Your task to perform on an android device: Go to Yahoo.com Image 0: 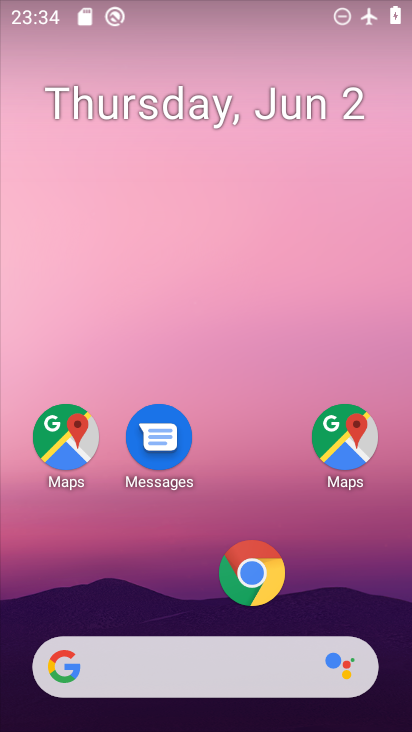
Step 0: click (251, 574)
Your task to perform on an android device: Go to Yahoo.com Image 1: 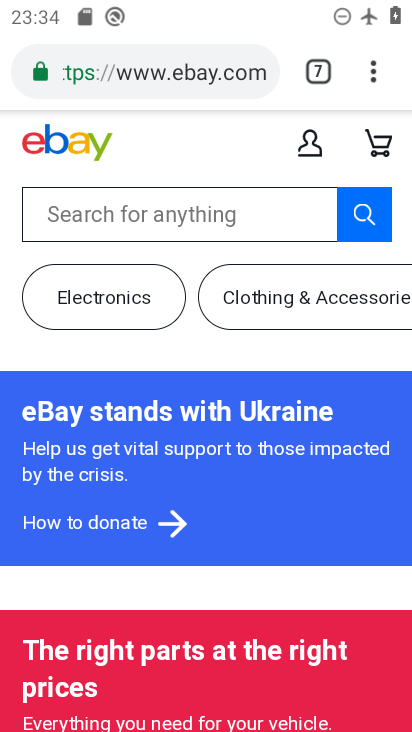
Step 1: click (308, 75)
Your task to perform on an android device: Go to Yahoo.com Image 2: 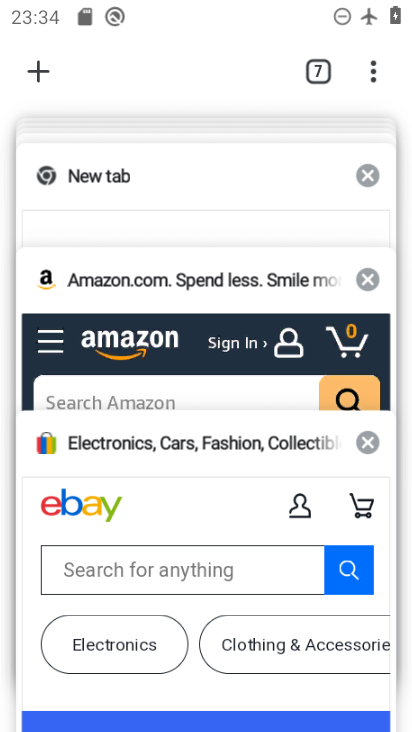
Step 2: drag from (233, 206) to (227, 541)
Your task to perform on an android device: Go to Yahoo.com Image 3: 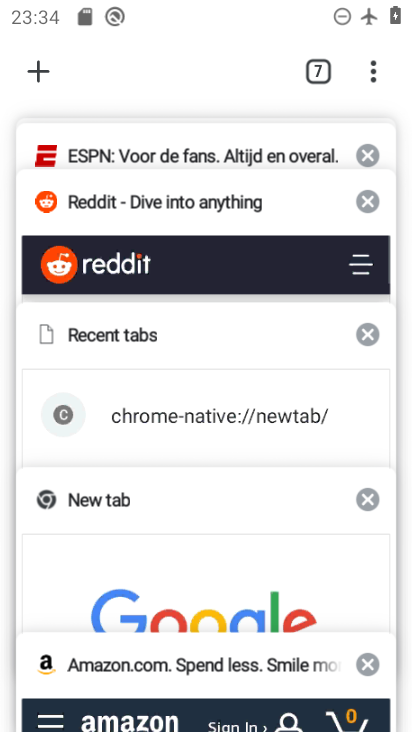
Step 3: drag from (226, 193) to (254, 701)
Your task to perform on an android device: Go to Yahoo.com Image 4: 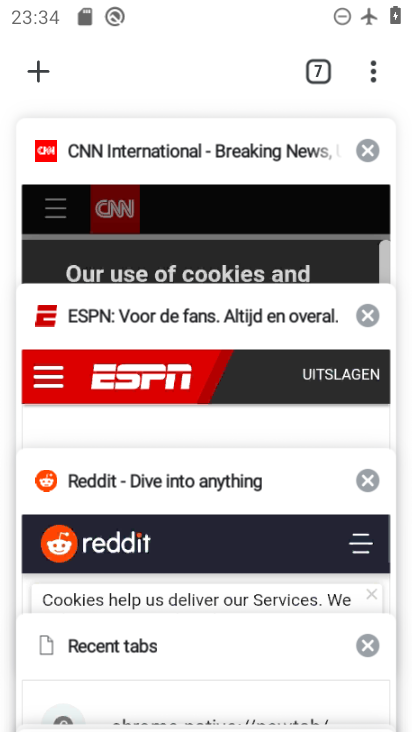
Step 4: drag from (214, 199) to (168, 608)
Your task to perform on an android device: Go to Yahoo.com Image 5: 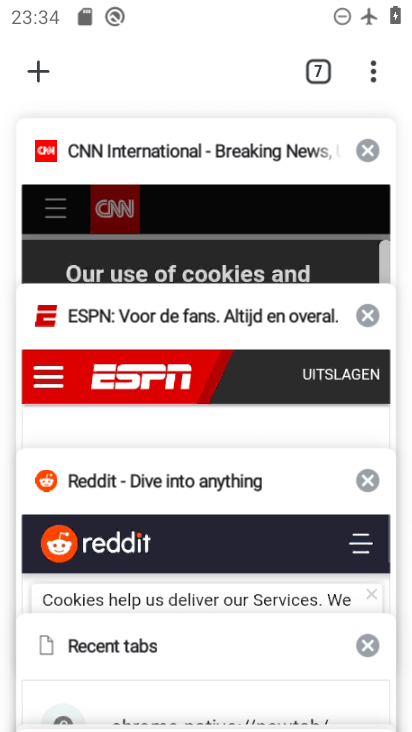
Step 5: drag from (201, 642) to (273, 179)
Your task to perform on an android device: Go to Yahoo.com Image 6: 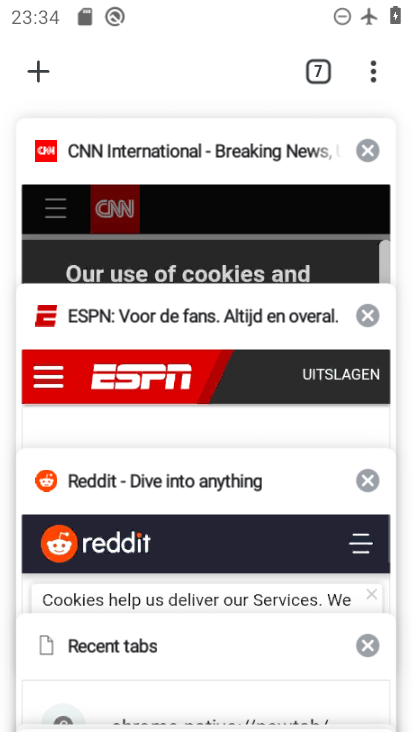
Step 6: drag from (144, 644) to (122, 308)
Your task to perform on an android device: Go to Yahoo.com Image 7: 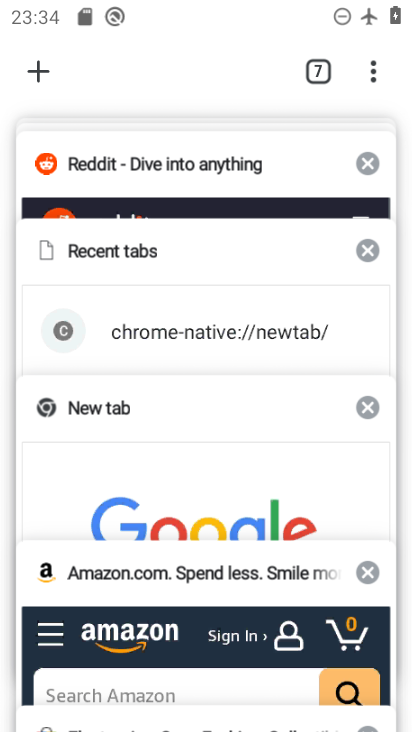
Step 7: click (138, 481)
Your task to perform on an android device: Go to Yahoo.com Image 8: 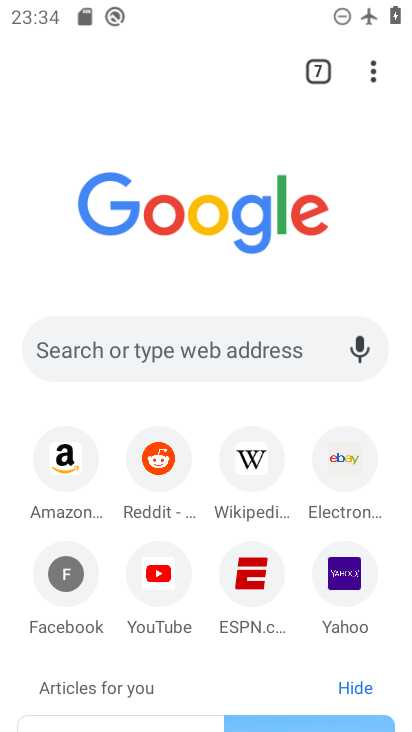
Step 8: click (355, 562)
Your task to perform on an android device: Go to Yahoo.com Image 9: 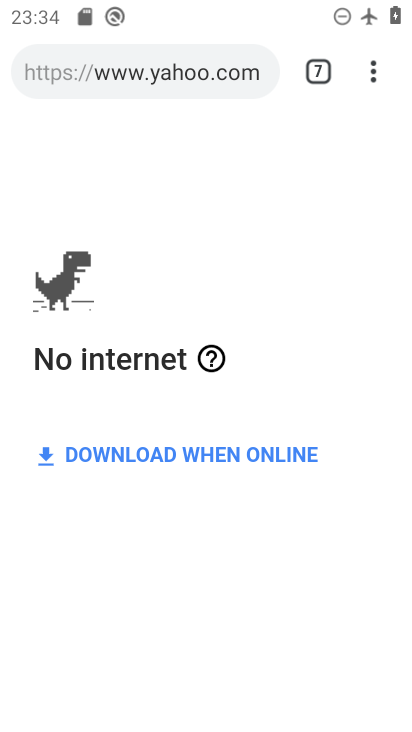
Step 9: drag from (283, 12) to (181, 478)
Your task to perform on an android device: Go to Yahoo.com Image 10: 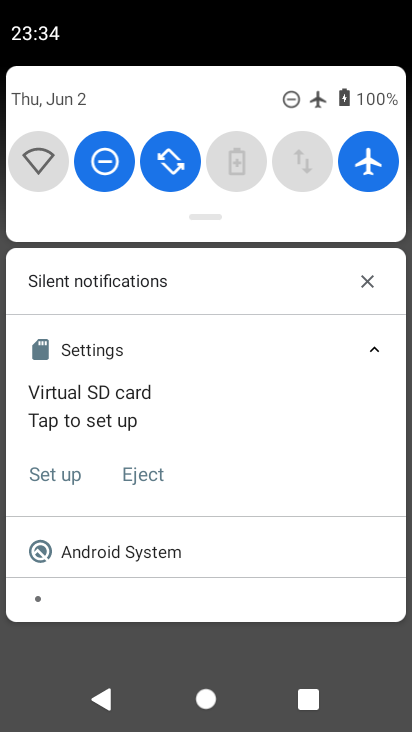
Step 10: click (375, 148)
Your task to perform on an android device: Go to Yahoo.com Image 11: 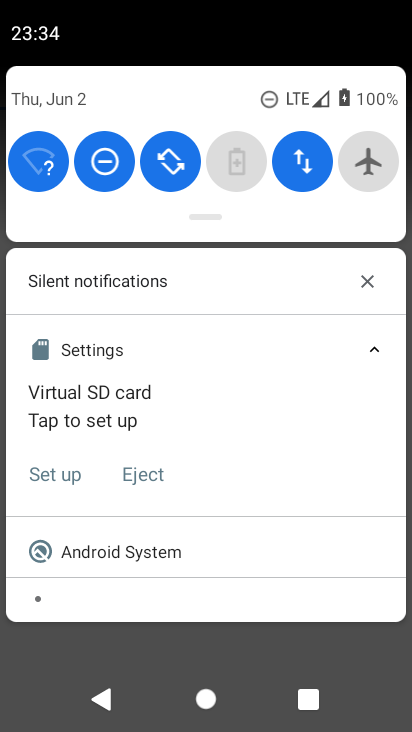
Step 11: task complete